Your task to perform on an android device: choose inbox layout in the gmail app Image 0: 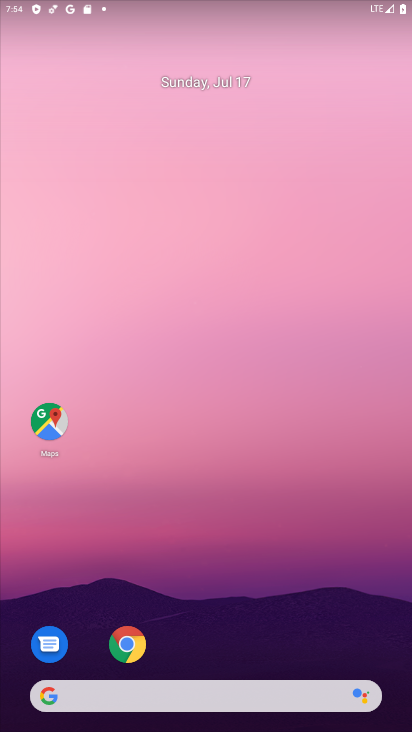
Step 0: drag from (259, 634) to (264, 261)
Your task to perform on an android device: choose inbox layout in the gmail app Image 1: 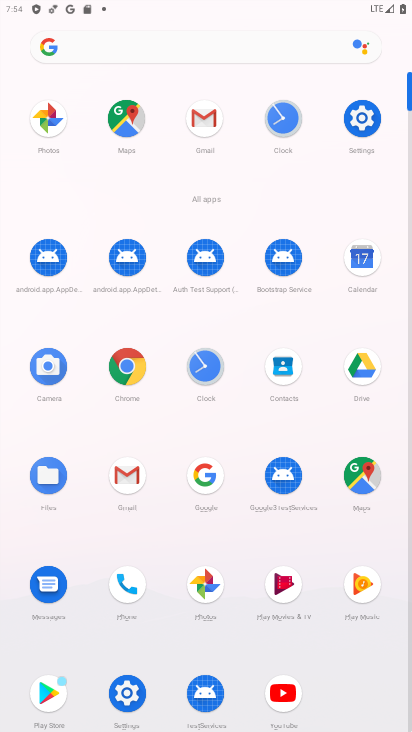
Step 1: click (205, 128)
Your task to perform on an android device: choose inbox layout in the gmail app Image 2: 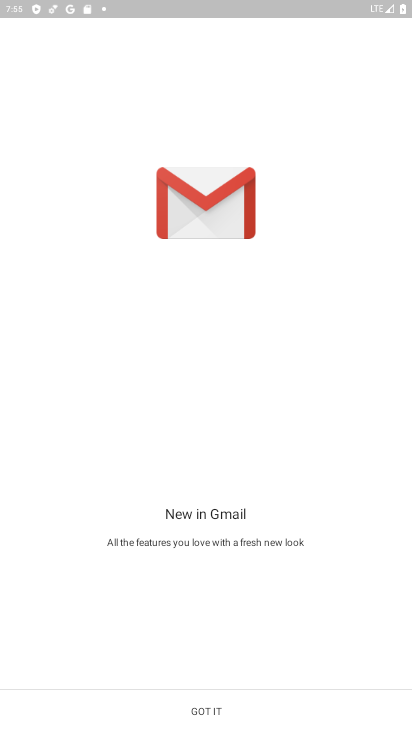
Step 2: click (180, 728)
Your task to perform on an android device: choose inbox layout in the gmail app Image 3: 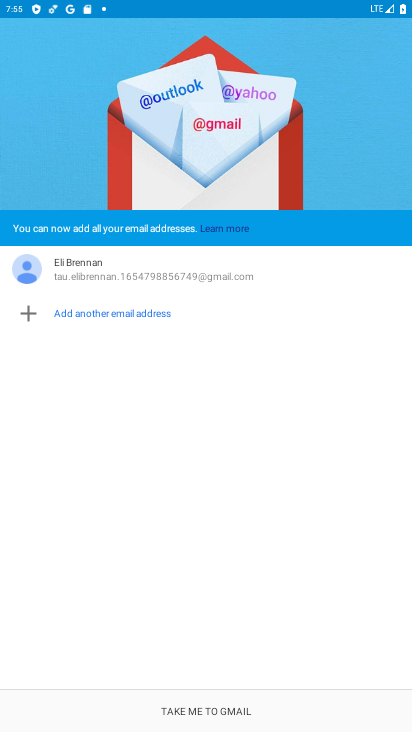
Step 3: click (180, 728)
Your task to perform on an android device: choose inbox layout in the gmail app Image 4: 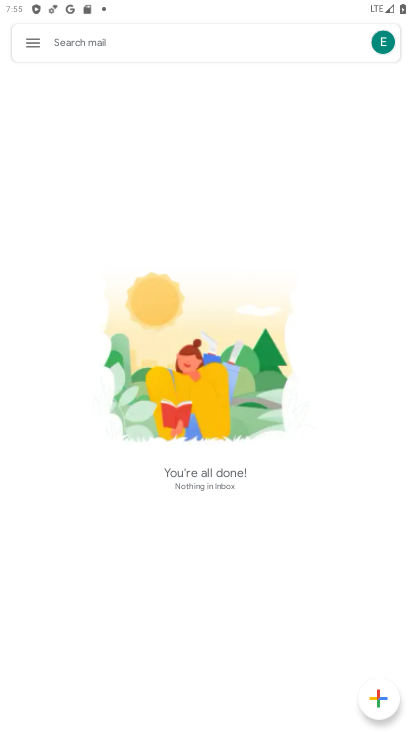
Step 4: click (23, 41)
Your task to perform on an android device: choose inbox layout in the gmail app Image 5: 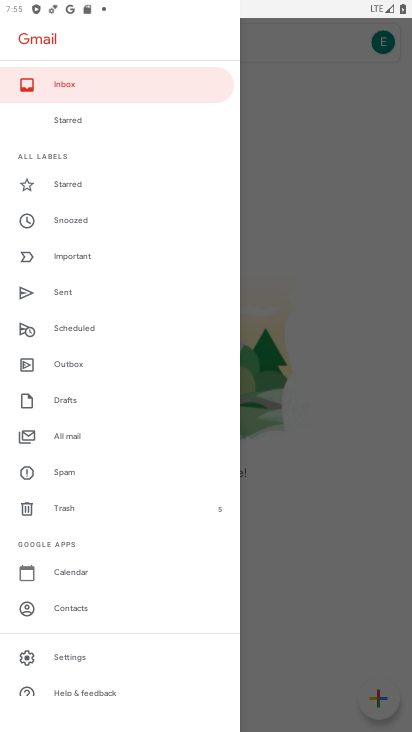
Step 5: click (61, 665)
Your task to perform on an android device: choose inbox layout in the gmail app Image 6: 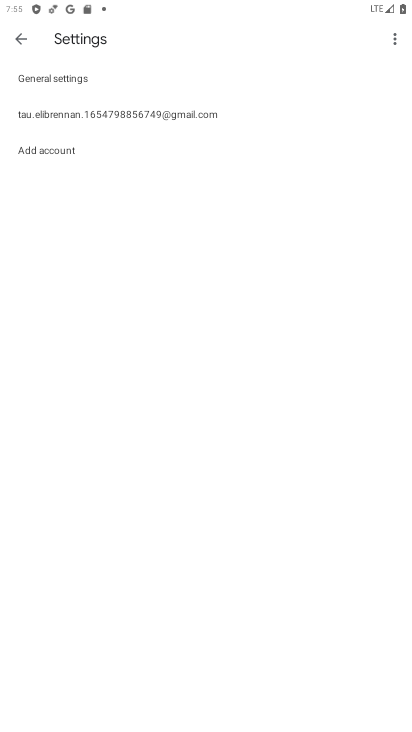
Step 6: click (59, 121)
Your task to perform on an android device: choose inbox layout in the gmail app Image 7: 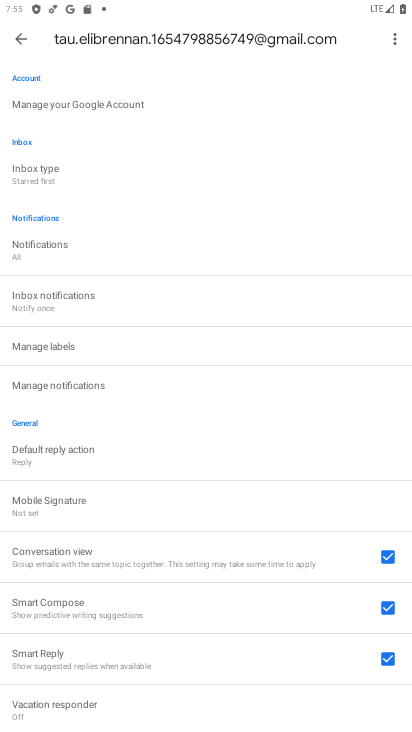
Step 7: click (55, 173)
Your task to perform on an android device: choose inbox layout in the gmail app Image 8: 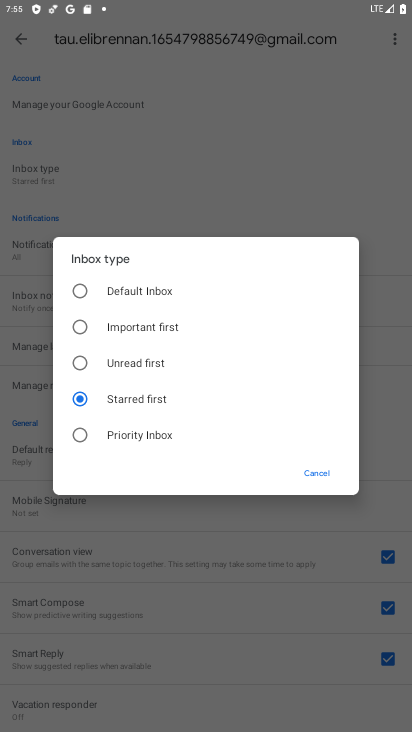
Step 8: click (99, 290)
Your task to perform on an android device: choose inbox layout in the gmail app Image 9: 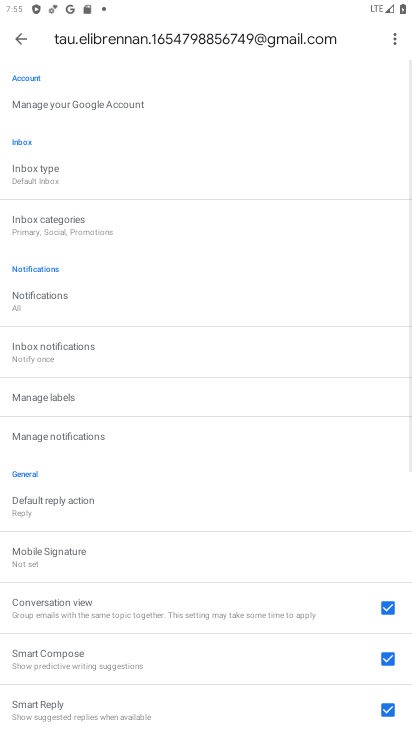
Step 9: task complete